Your task to perform on an android device: check google app version Image 0: 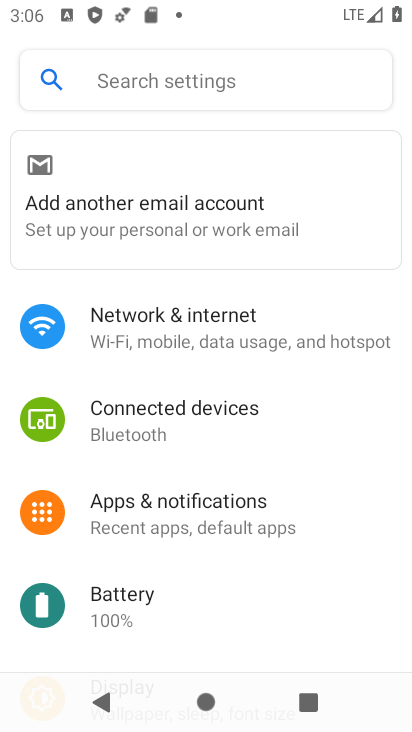
Step 0: click (309, 200)
Your task to perform on an android device: check google app version Image 1: 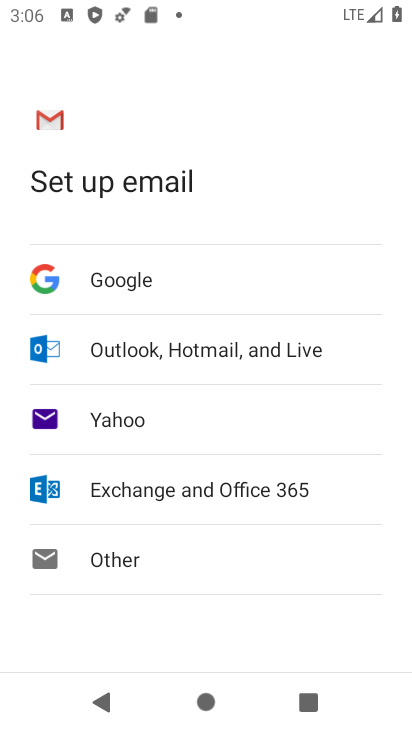
Step 1: press back button
Your task to perform on an android device: check google app version Image 2: 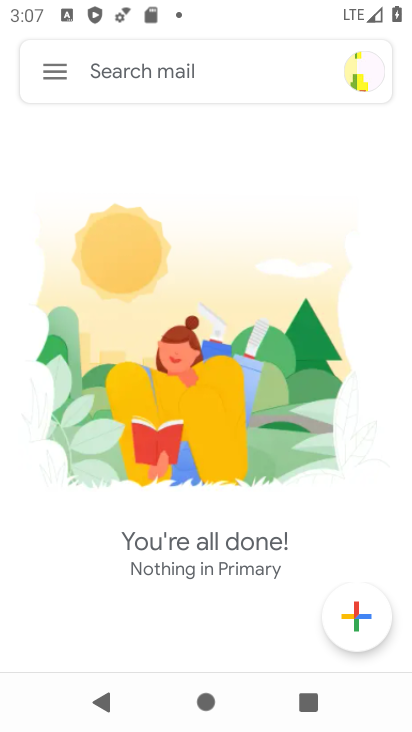
Step 2: drag from (197, 520) to (282, 140)
Your task to perform on an android device: check google app version Image 3: 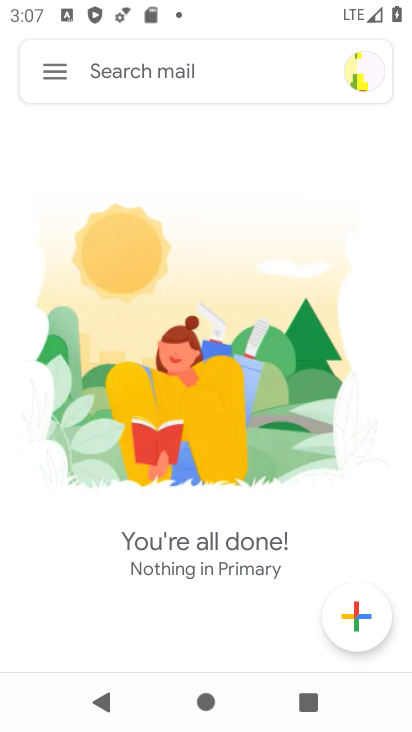
Step 3: press home button
Your task to perform on an android device: check google app version Image 4: 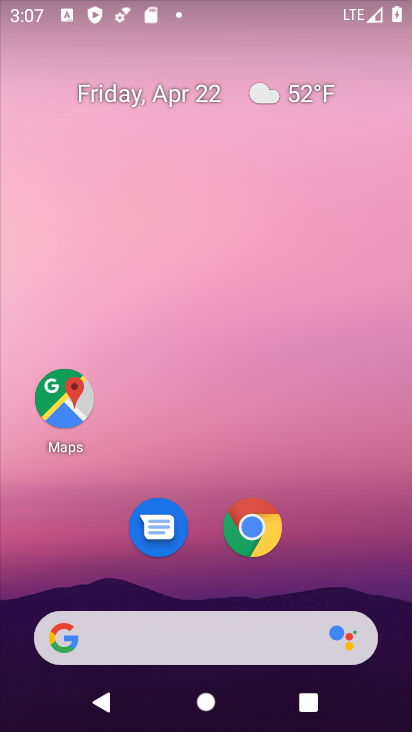
Step 4: drag from (307, 407) to (257, 38)
Your task to perform on an android device: check google app version Image 5: 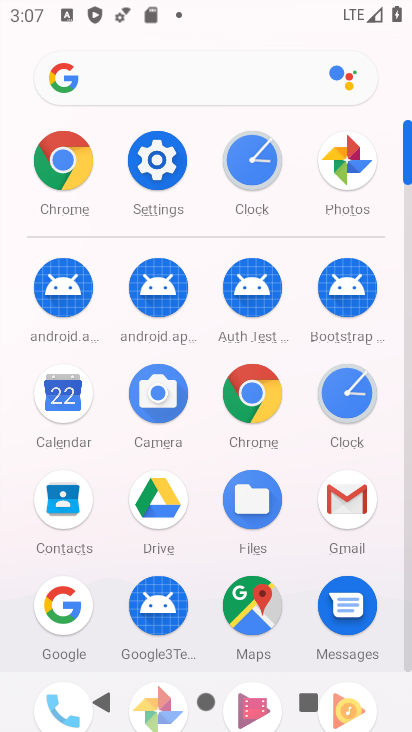
Step 5: click (150, 160)
Your task to perform on an android device: check google app version Image 6: 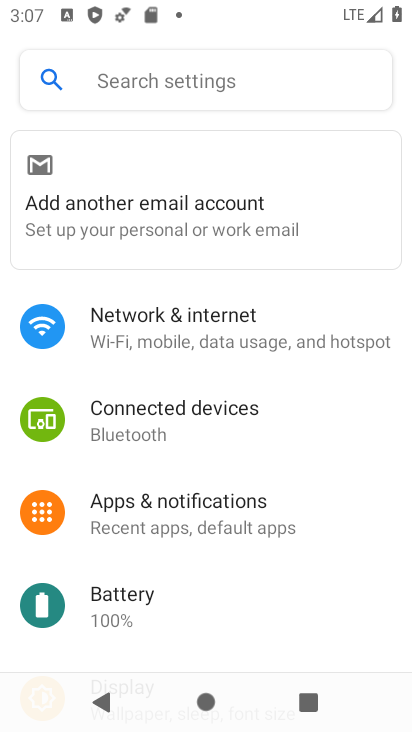
Step 6: drag from (171, 547) to (285, 237)
Your task to perform on an android device: check google app version Image 7: 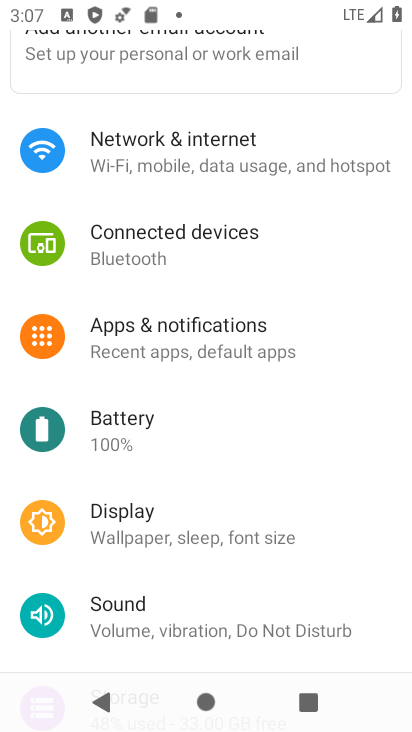
Step 7: drag from (233, 572) to (307, 168)
Your task to perform on an android device: check google app version Image 8: 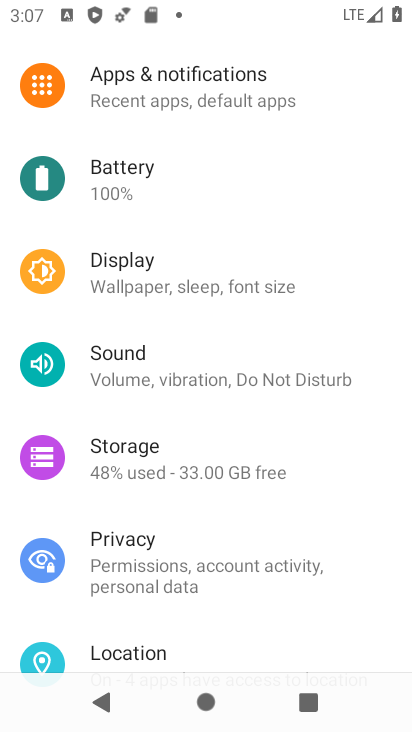
Step 8: drag from (240, 551) to (286, 222)
Your task to perform on an android device: check google app version Image 9: 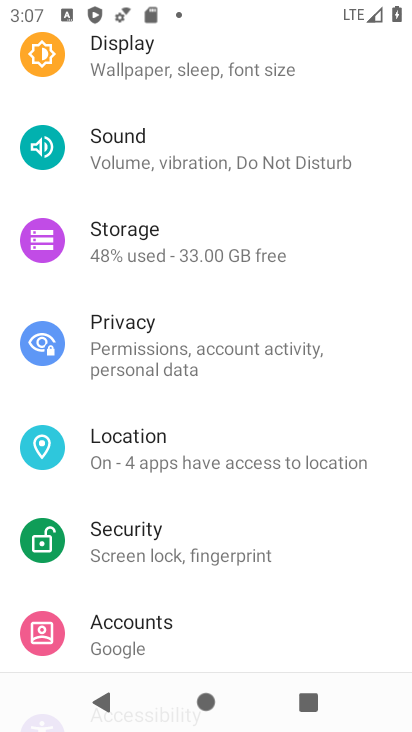
Step 9: drag from (264, 639) to (332, 252)
Your task to perform on an android device: check google app version Image 10: 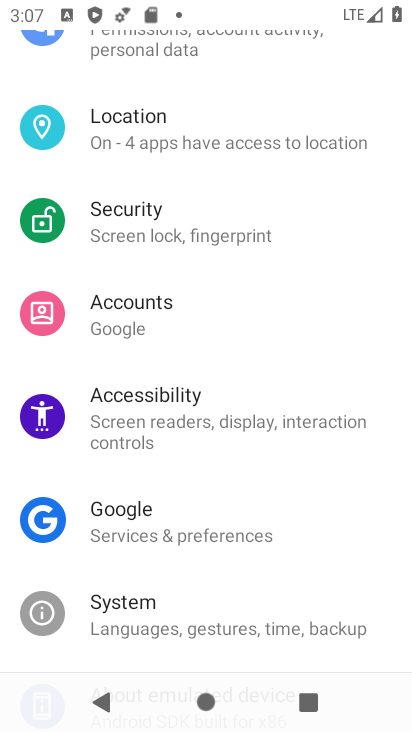
Step 10: drag from (241, 616) to (297, 251)
Your task to perform on an android device: check google app version Image 11: 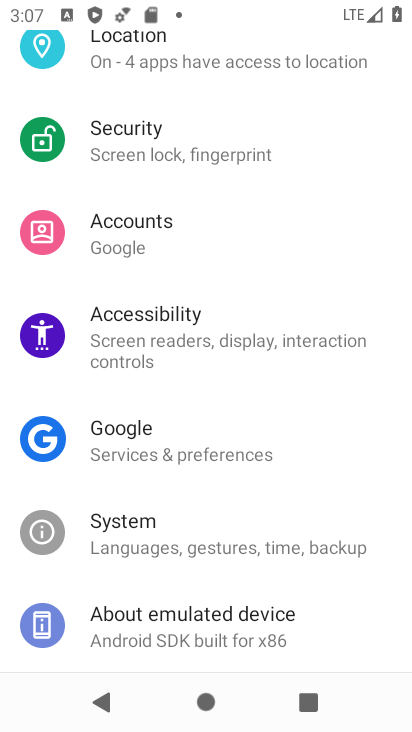
Step 11: drag from (219, 571) to (243, 258)
Your task to perform on an android device: check google app version Image 12: 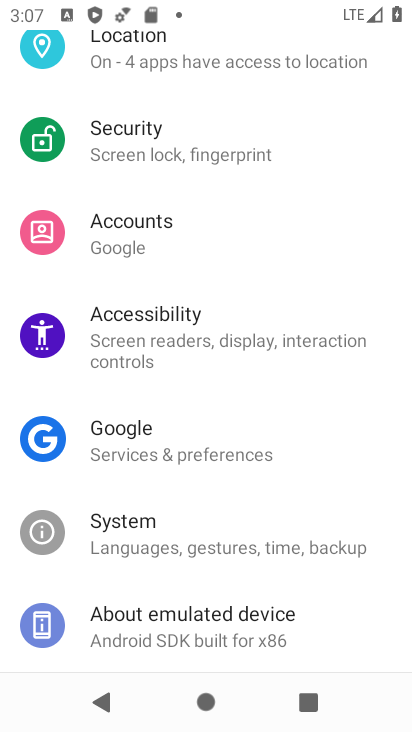
Step 12: click (145, 632)
Your task to perform on an android device: check google app version Image 13: 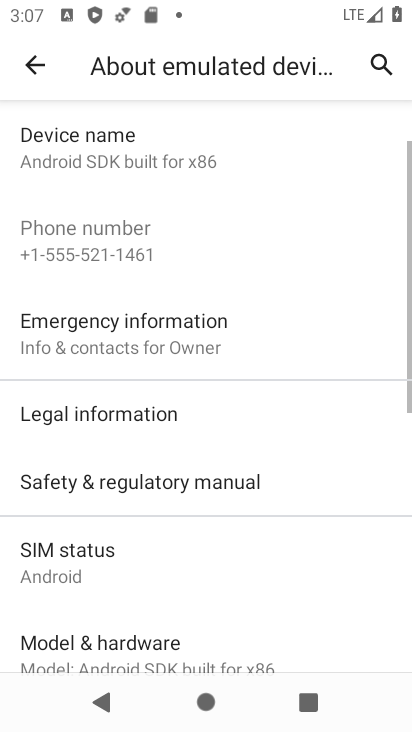
Step 13: drag from (169, 604) to (245, 278)
Your task to perform on an android device: check google app version Image 14: 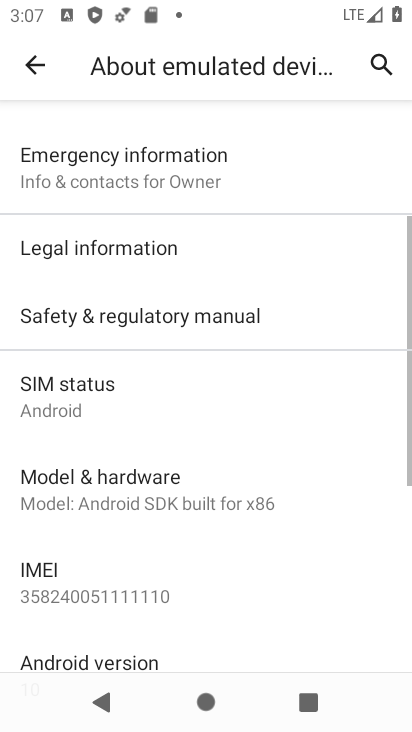
Step 14: drag from (159, 615) to (208, 213)
Your task to perform on an android device: check google app version Image 15: 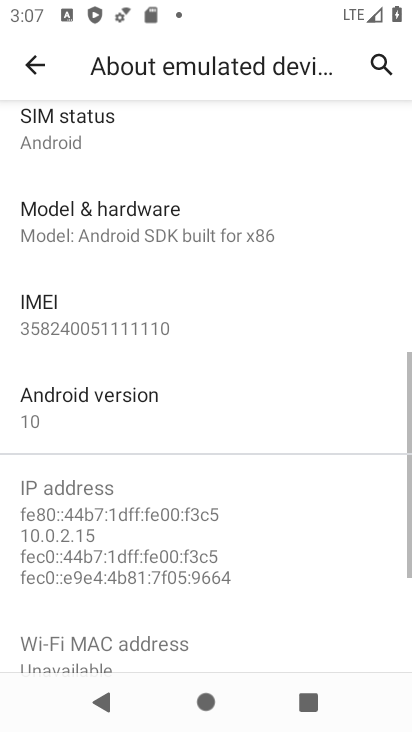
Step 15: click (111, 395)
Your task to perform on an android device: check google app version Image 16: 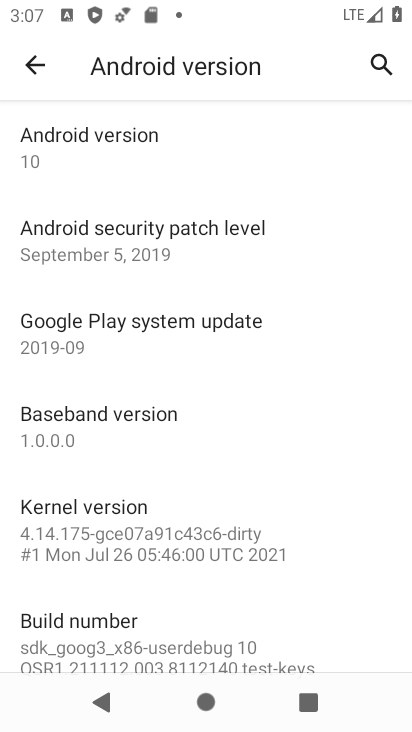
Step 16: drag from (254, 179) to (206, 521)
Your task to perform on an android device: check google app version Image 17: 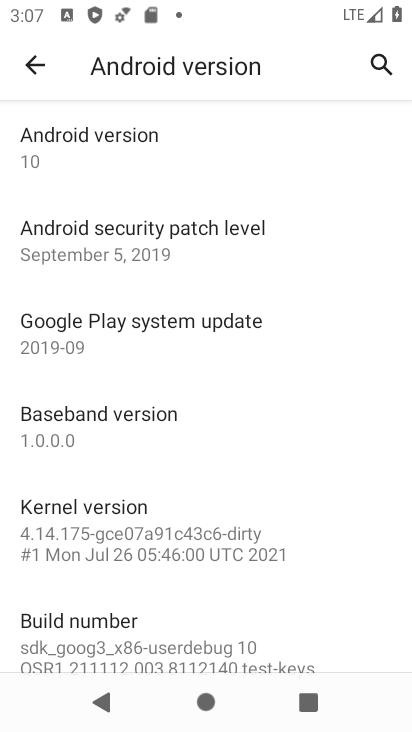
Step 17: click (48, 140)
Your task to perform on an android device: check google app version Image 18: 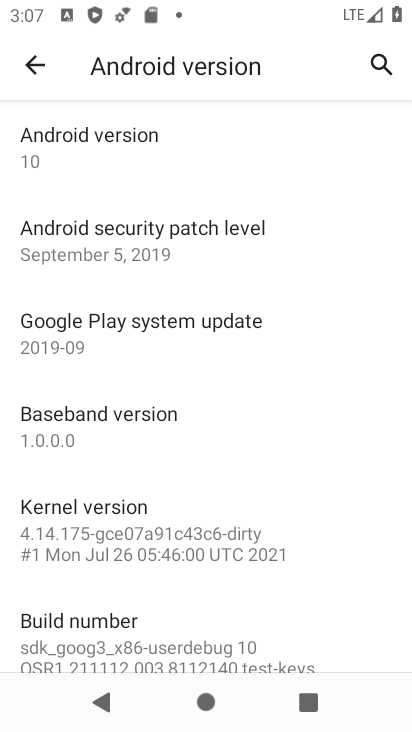
Step 18: task complete